Your task to perform on an android device: Open notification settings Image 0: 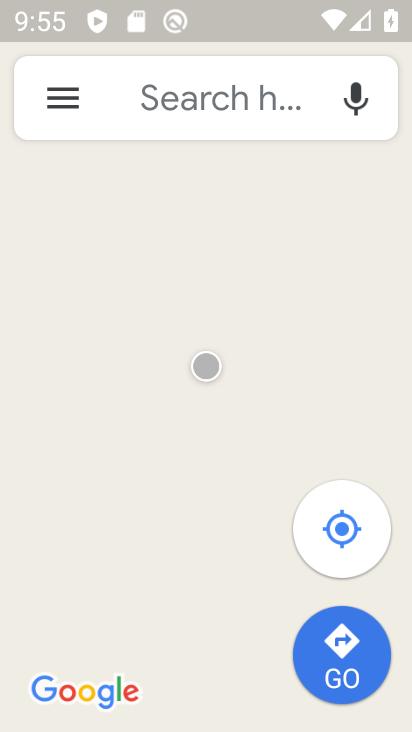
Step 0: press home button
Your task to perform on an android device: Open notification settings Image 1: 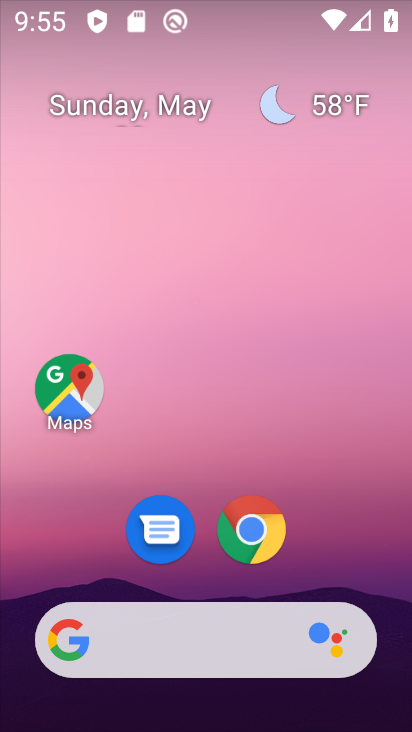
Step 1: drag from (195, 564) to (150, 49)
Your task to perform on an android device: Open notification settings Image 2: 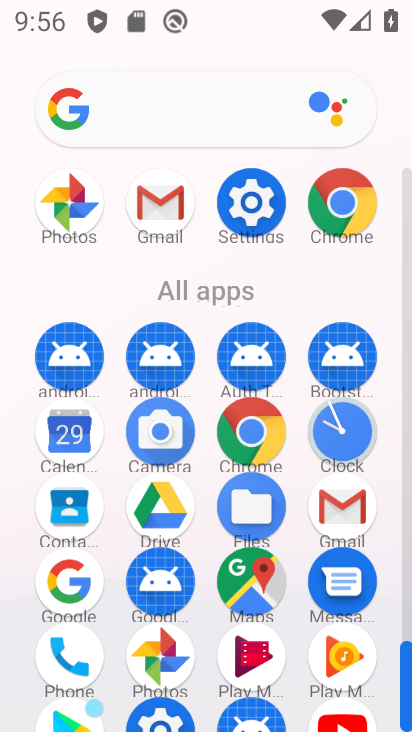
Step 2: click (269, 218)
Your task to perform on an android device: Open notification settings Image 3: 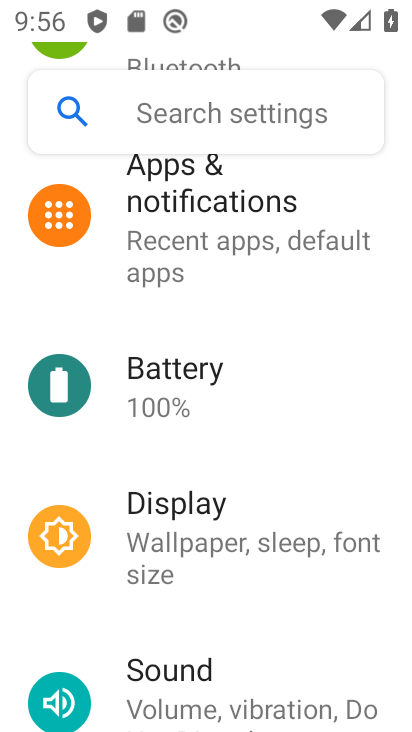
Step 3: click (253, 259)
Your task to perform on an android device: Open notification settings Image 4: 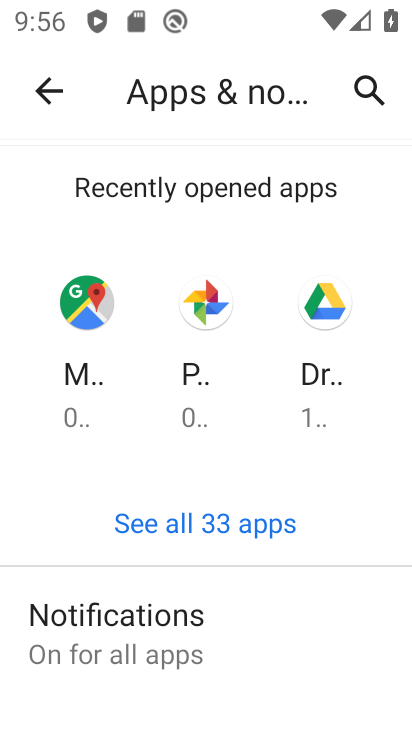
Step 4: drag from (134, 611) to (186, 295)
Your task to perform on an android device: Open notification settings Image 5: 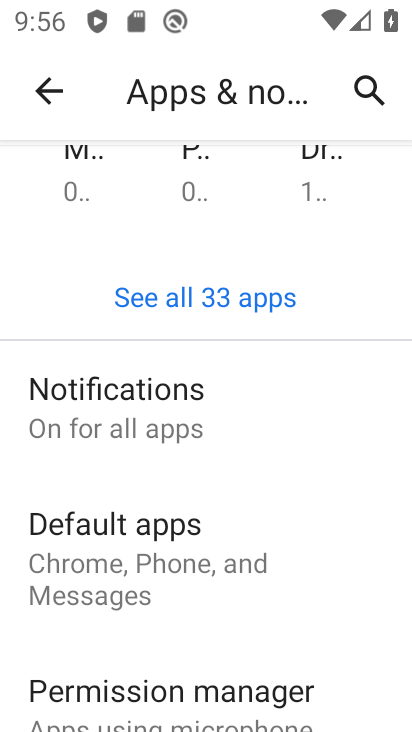
Step 5: click (124, 416)
Your task to perform on an android device: Open notification settings Image 6: 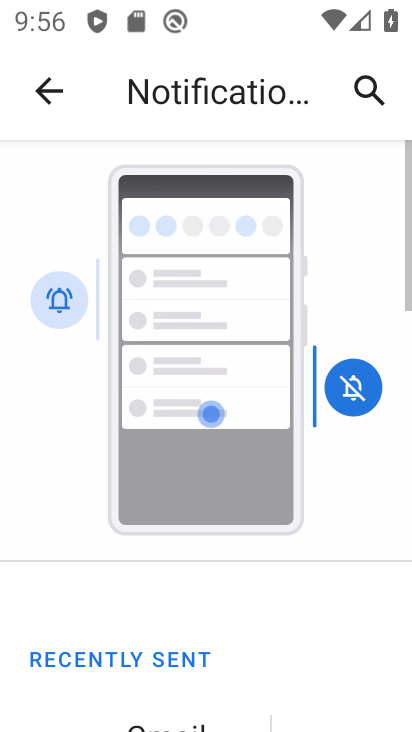
Step 6: task complete